Your task to perform on an android device: set the timer Image 0: 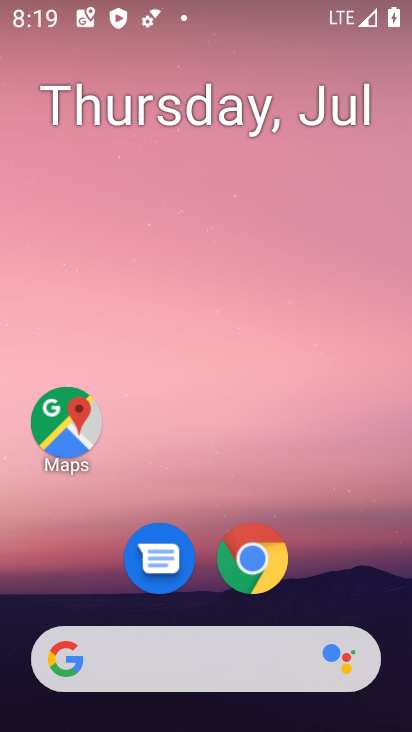
Step 0: drag from (204, 612) to (278, 49)
Your task to perform on an android device: set the timer Image 1: 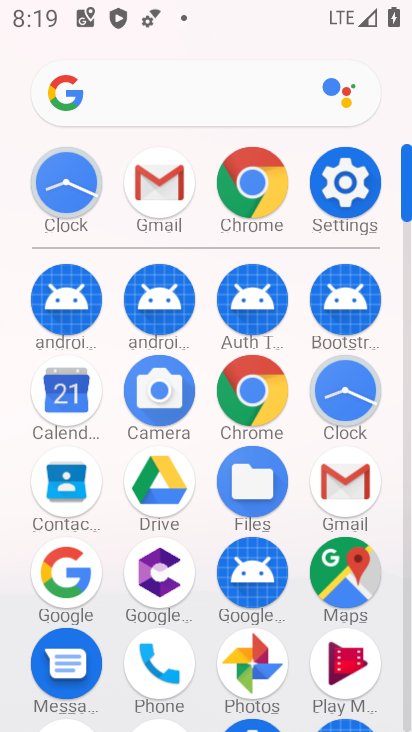
Step 1: click (361, 400)
Your task to perform on an android device: set the timer Image 2: 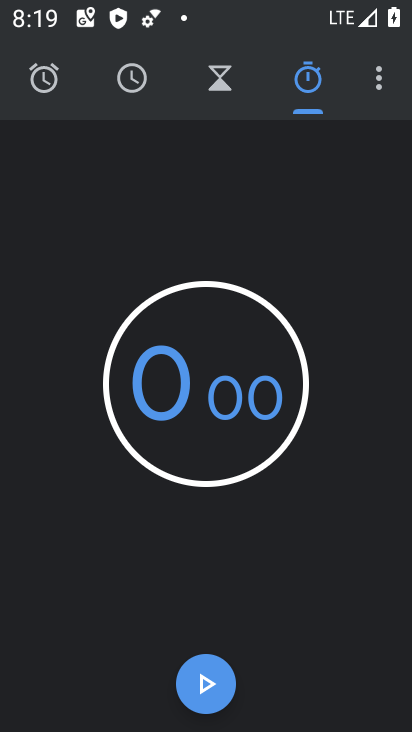
Step 2: click (246, 86)
Your task to perform on an android device: set the timer Image 3: 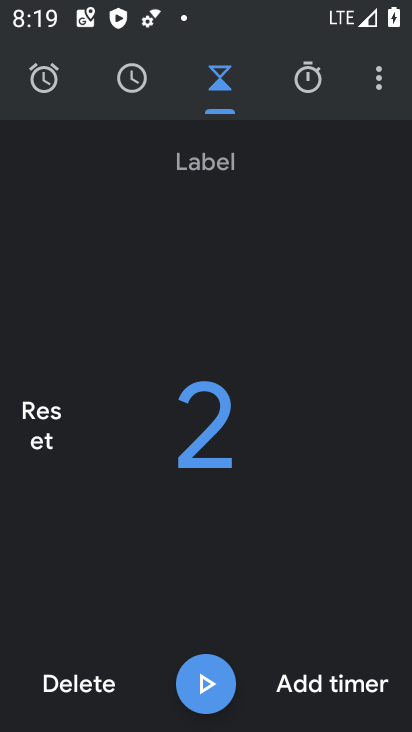
Step 3: click (219, 687)
Your task to perform on an android device: set the timer Image 4: 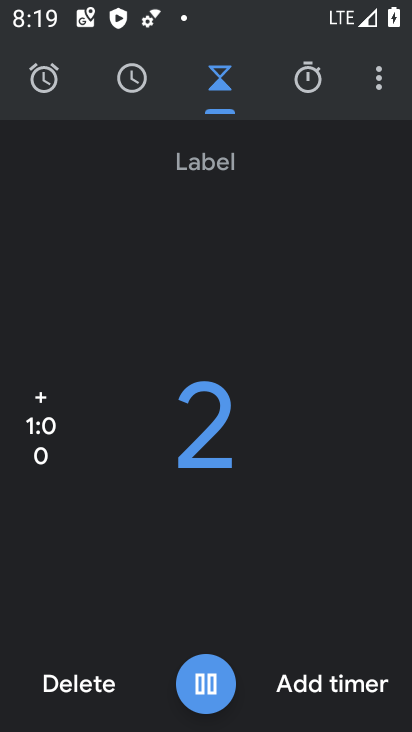
Step 4: task complete